Your task to perform on an android device: Check the news Image 0: 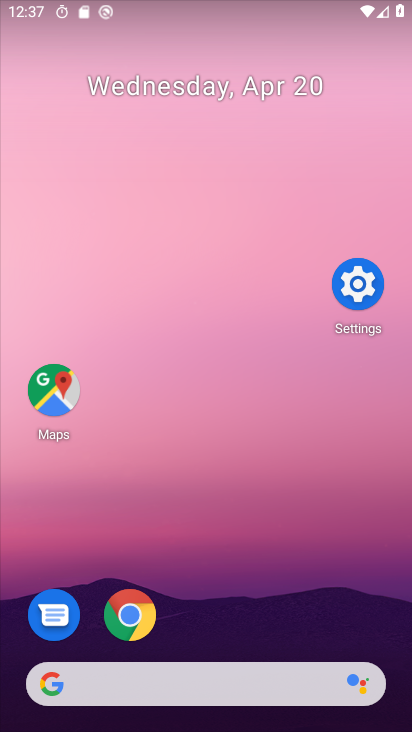
Step 0: click (135, 623)
Your task to perform on an android device: Check the news Image 1: 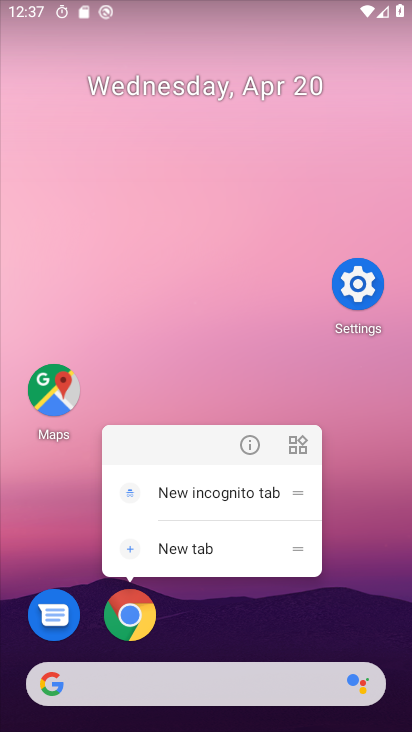
Step 1: click (252, 441)
Your task to perform on an android device: Check the news Image 2: 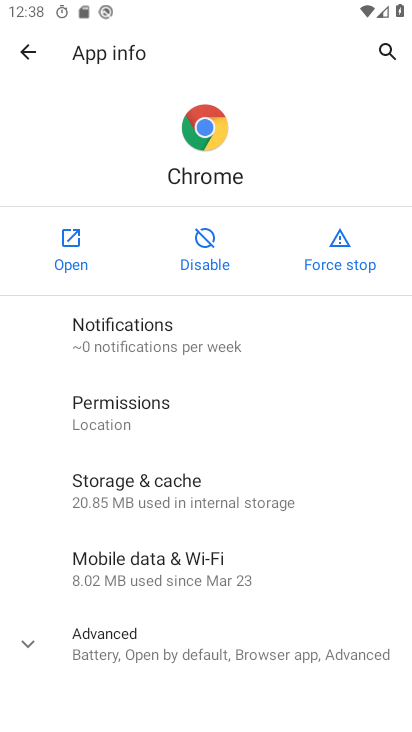
Step 2: click (65, 252)
Your task to perform on an android device: Check the news Image 3: 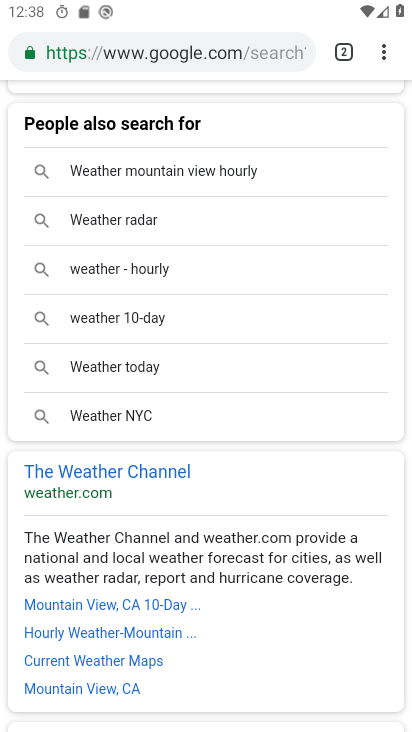
Step 3: click (207, 49)
Your task to perform on an android device: Check the news Image 4: 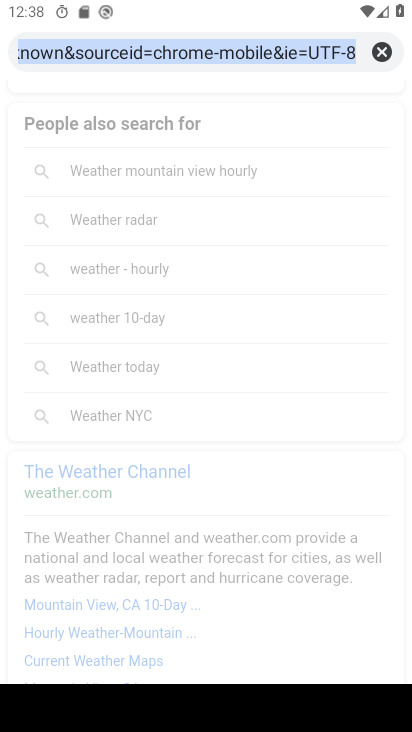
Step 4: click (385, 57)
Your task to perform on an android device: Check the news Image 5: 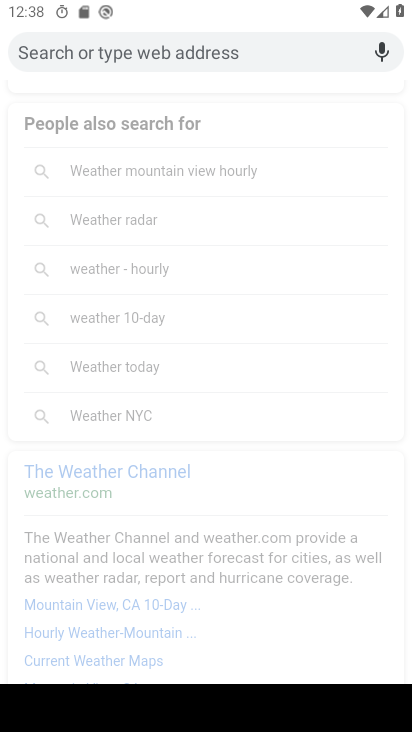
Step 5: type "news"
Your task to perform on an android device: Check the news Image 6: 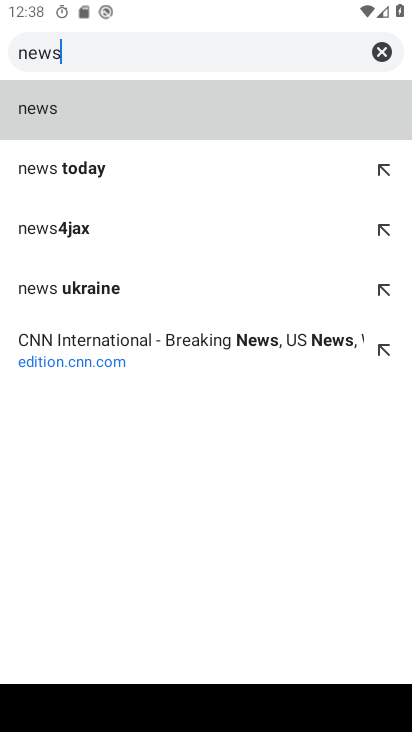
Step 6: click (96, 134)
Your task to perform on an android device: Check the news Image 7: 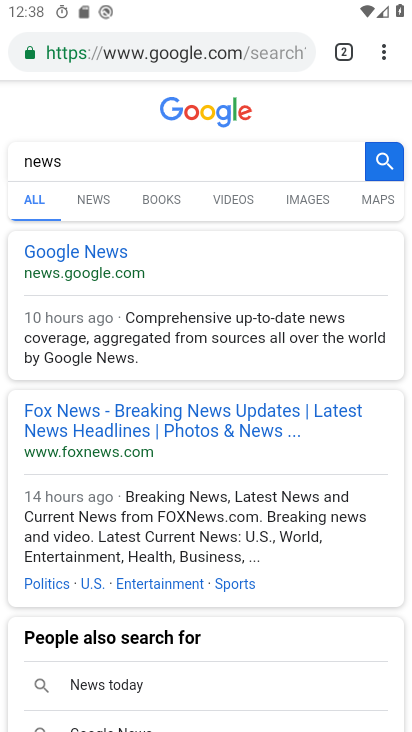
Step 7: click (76, 258)
Your task to perform on an android device: Check the news Image 8: 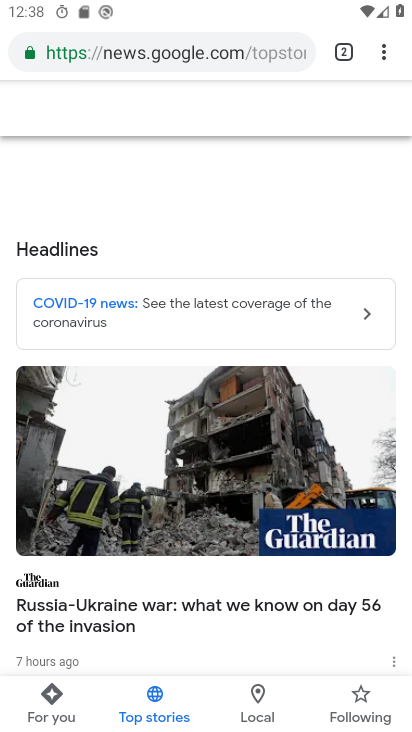
Step 8: task complete